Your task to perform on an android device: Search for the best rated phone case for the iPhone 8. Image 0: 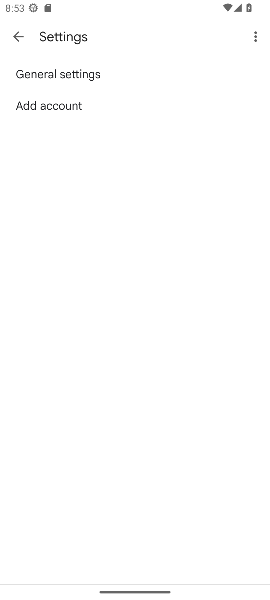
Step 0: press home button
Your task to perform on an android device: Search for the best rated phone case for the iPhone 8. Image 1: 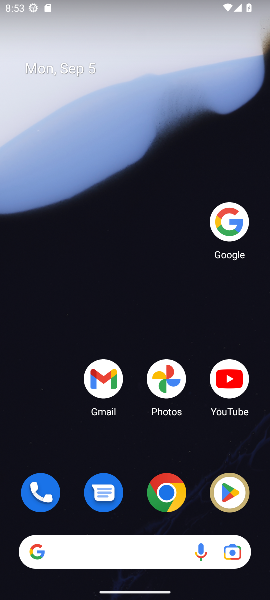
Step 1: click (232, 211)
Your task to perform on an android device: Search for the best rated phone case for the iPhone 8. Image 2: 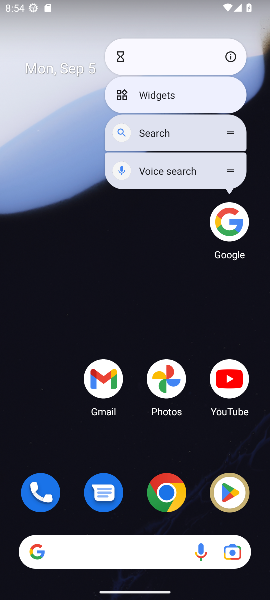
Step 2: click (221, 230)
Your task to perform on an android device: Search for the best rated phone case for the iPhone 8. Image 3: 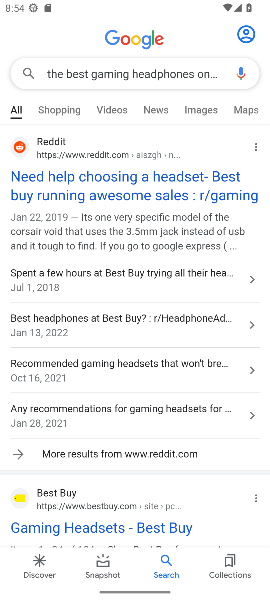
Step 3: click (195, 73)
Your task to perform on an android device: Search for the best rated phone case for the iPhone 8. Image 4: 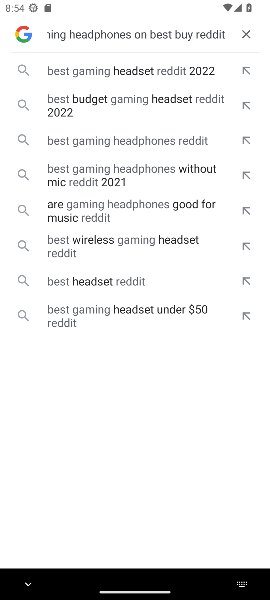
Step 4: click (250, 37)
Your task to perform on an android device: Search for the best rated phone case for the iPhone 8. Image 5: 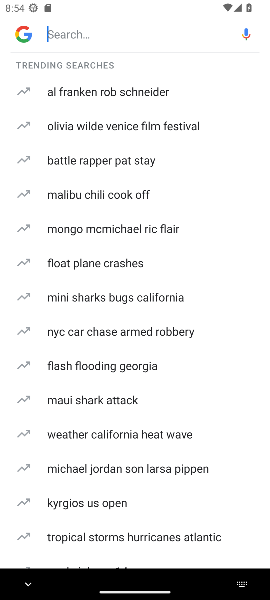
Step 5: click (111, 39)
Your task to perform on an android device: Search for the best rated phone case for the iPhone 8. Image 6: 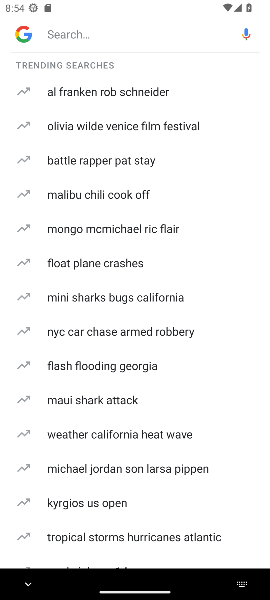
Step 6: type " best rated phone case for the iPhone 8 "
Your task to perform on an android device: Search for the best rated phone case for the iPhone 8. Image 7: 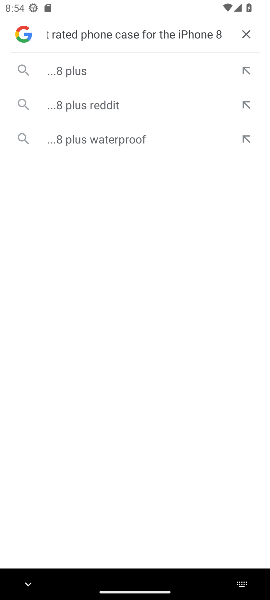
Step 7: click (77, 69)
Your task to perform on an android device: Search for the best rated phone case for the iPhone 8. Image 8: 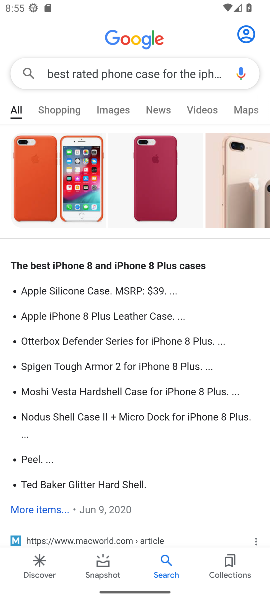
Step 8: task complete